Your task to perform on an android device: turn on javascript in the chrome app Image 0: 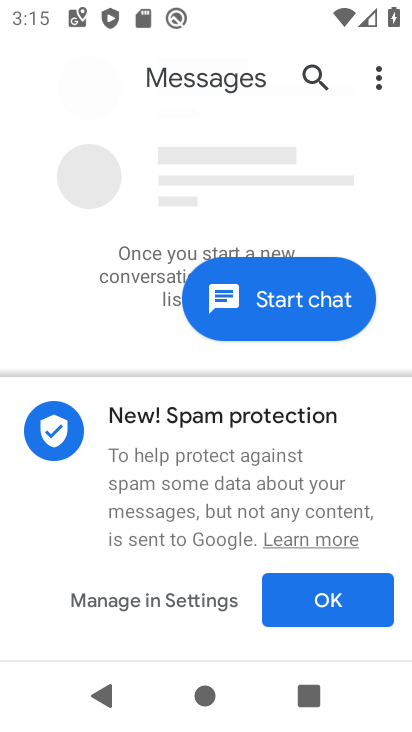
Step 0: press back button
Your task to perform on an android device: turn on javascript in the chrome app Image 1: 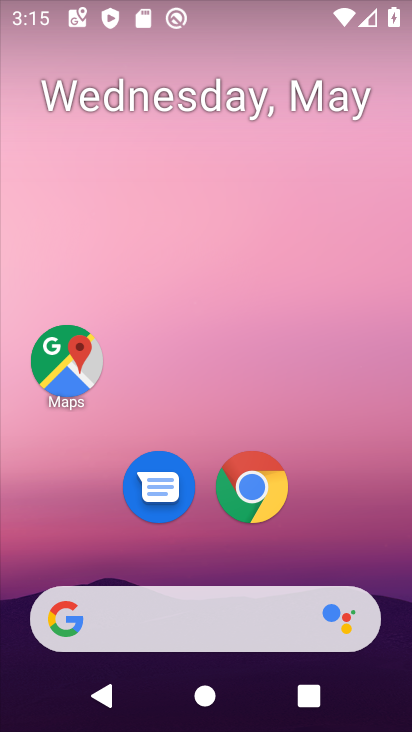
Step 1: click (254, 486)
Your task to perform on an android device: turn on javascript in the chrome app Image 2: 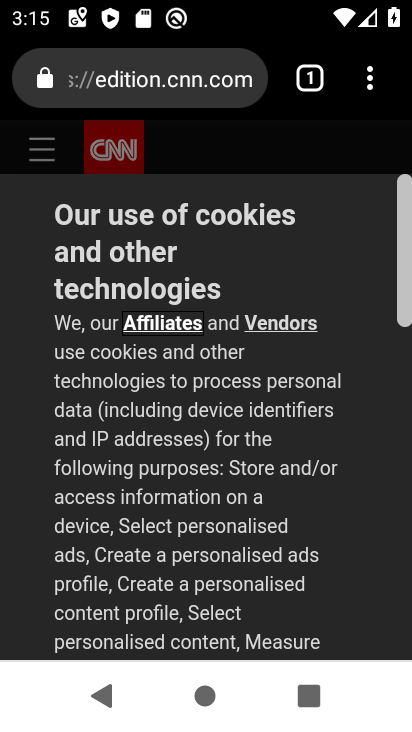
Step 2: drag from (369, 75) to (93, 543)
Your task to perform on an android device: turn on javascript in the chrome app Image 3: 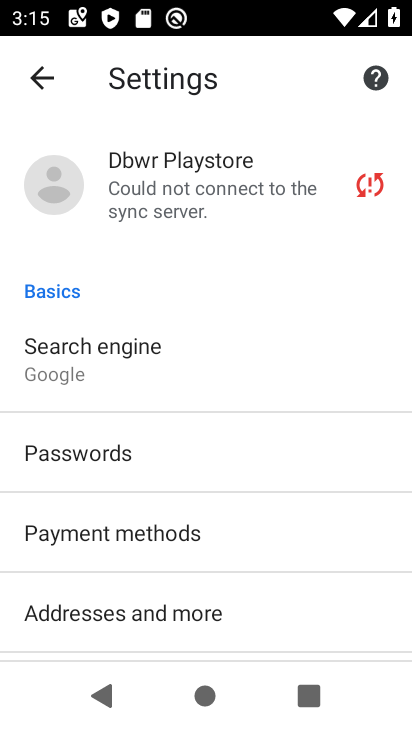
Step 3: drag from (263, 567) to (249, 210)
Your task to perform on an android device: turn on javascript in the chrome app Image 4: 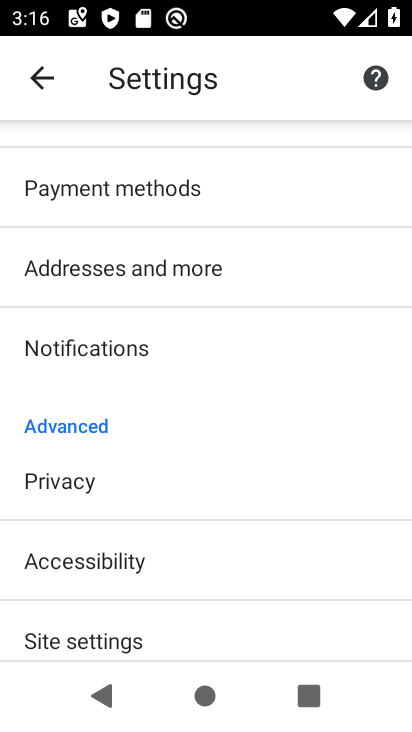
Step 4: click (174, 636)
Your task to perform on an android device: turn on javascript in the chrome app Image 5: 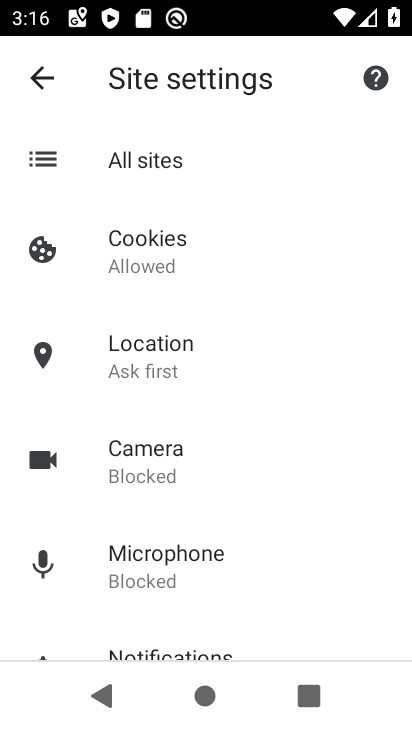
Step 5: task complete